Your task to perform on an android device: find which apps use the phone's location Image 0: 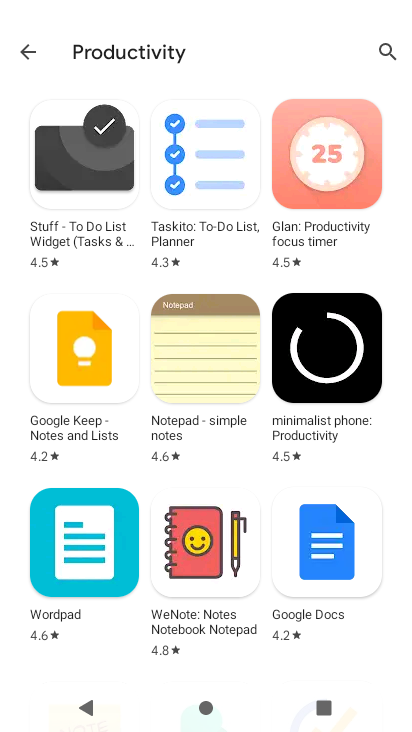
Step 0: press home button
Your task to perform on an android device: find which apps use the phone's location Image 1: 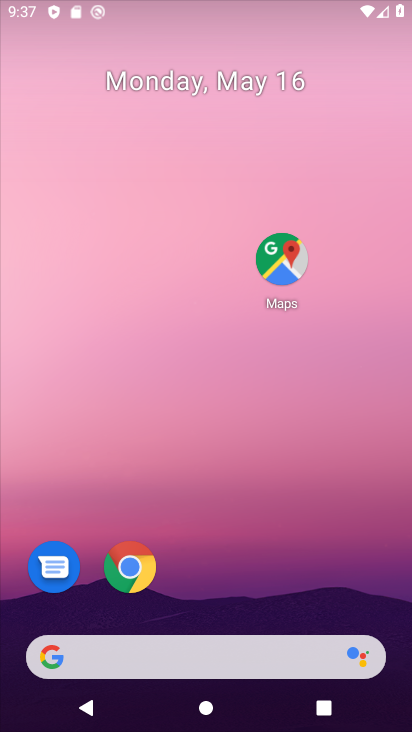
Step 1: drag from (259, 577) to (246, 75)
Your task to perform on an android device: find which apps use the phone's location Image 2: 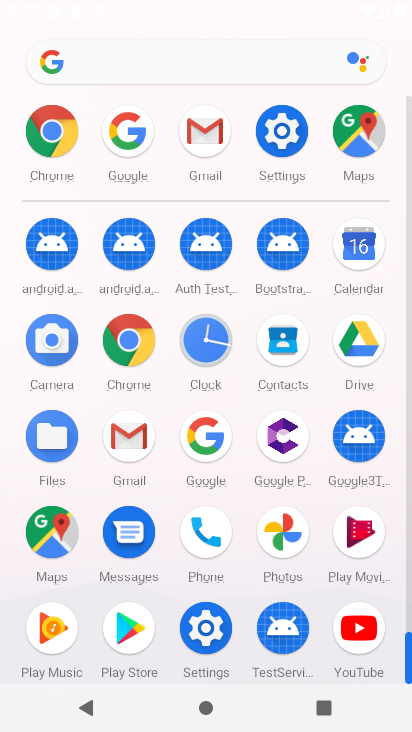
Step 2: click (280, 134)
Your task to perform on an android device: find which apps use the phone's location Image 3: 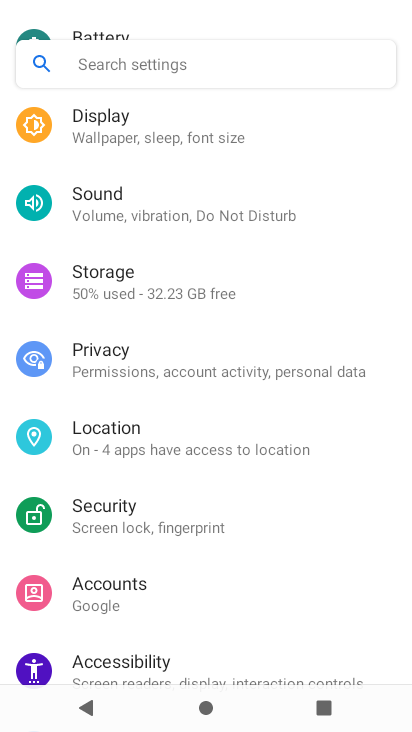
Step 3: click (138, 446)
Your task to perform on an android device: find which apps use the phone's location Image 4: 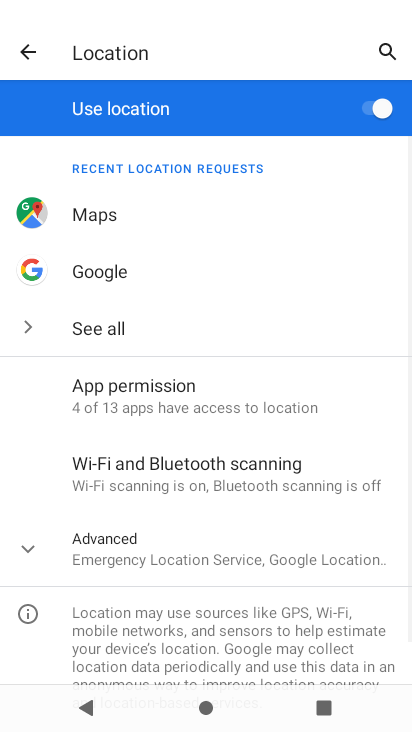
Step 4: drag from (206, 554) to (219, 107)
Your task to perform on an android device: find which apps use the phone's location Image 5: 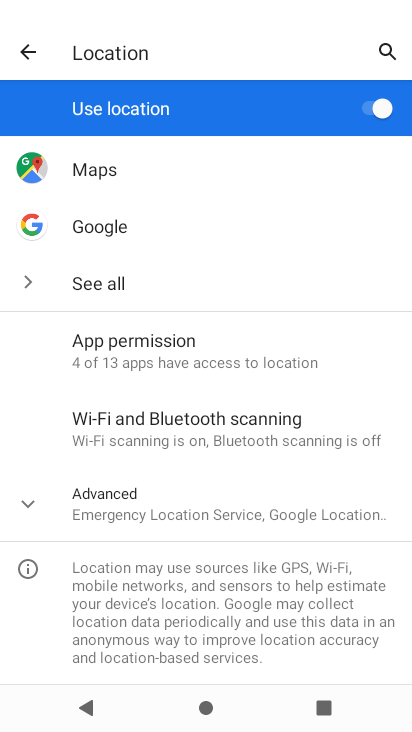
Step 5: click (151, 344)
Your task to perform on an android device: find which apps use the phone's location Image 6: 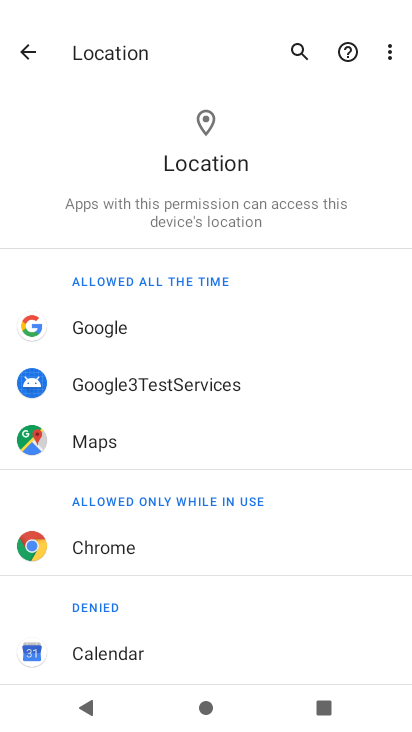
Step 6: task complete